Your task to perform on an android device: turn notification dots off Image 0: 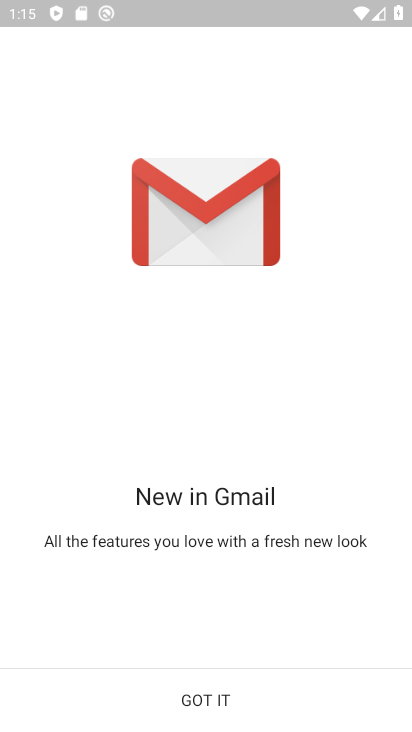
Step 0: press home button
Your task to perform on an android device: turn notification dots off Image 1: 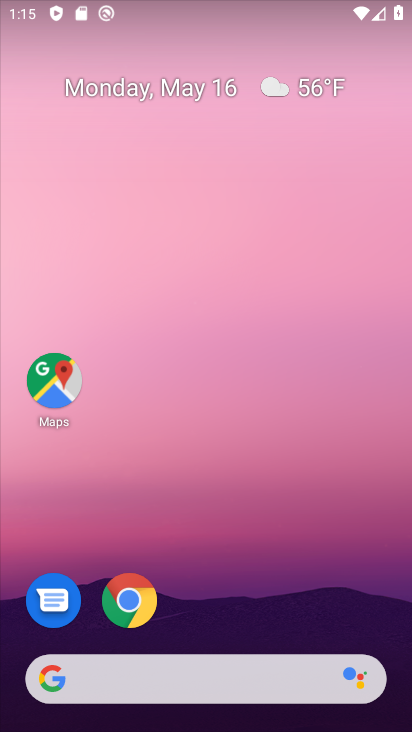
Step 1: drag from (285, 620) to (300, 119)
Your task to perform on an android device: turn notification dots off Image 2: 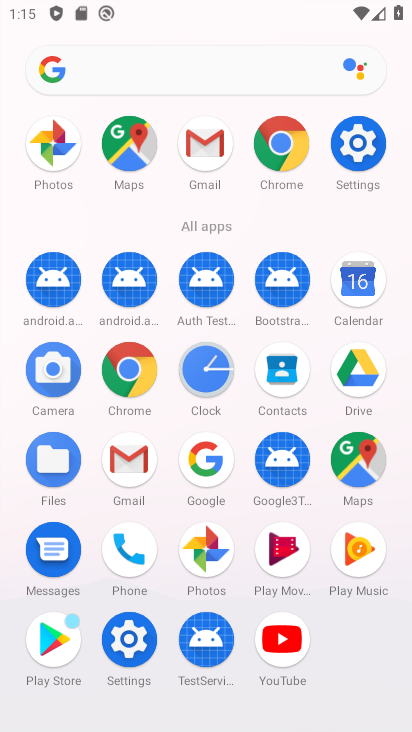
Step 2: click (349, 150)
Your task to perform on an android device: turn notification dots off Image 3: 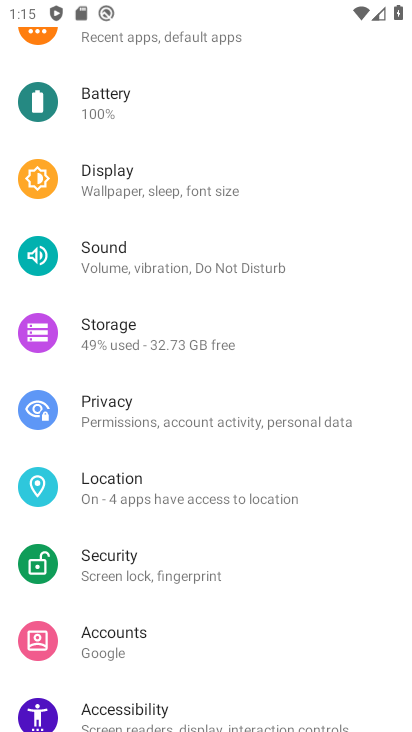
Step 3: click (144, 44)
Your task to perform on an android device: turn notification dots off Image 4: 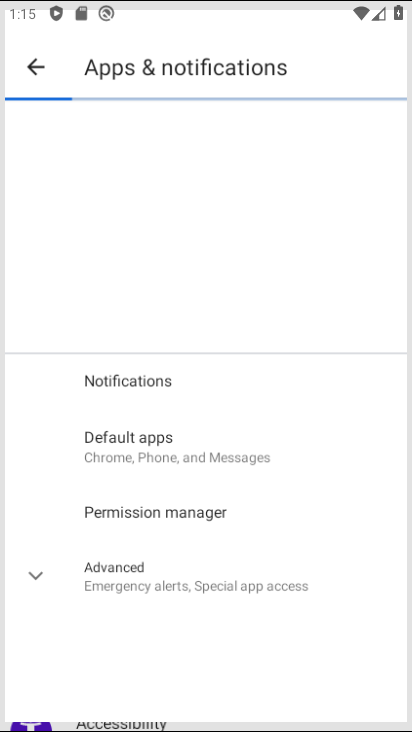
Step 4: drag from (150, 58) to (187, 421)
Your task to perform on an android device: turn notification dots off Image 5: 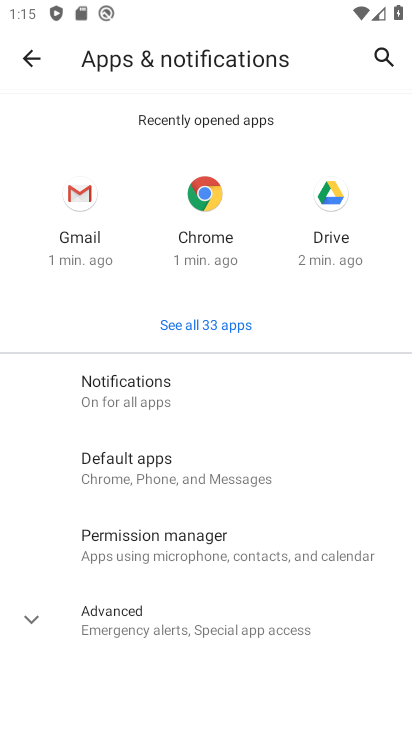
Step 5: click (165, 403)
Your task to perform on an android device: turn notification dots off Image 6: 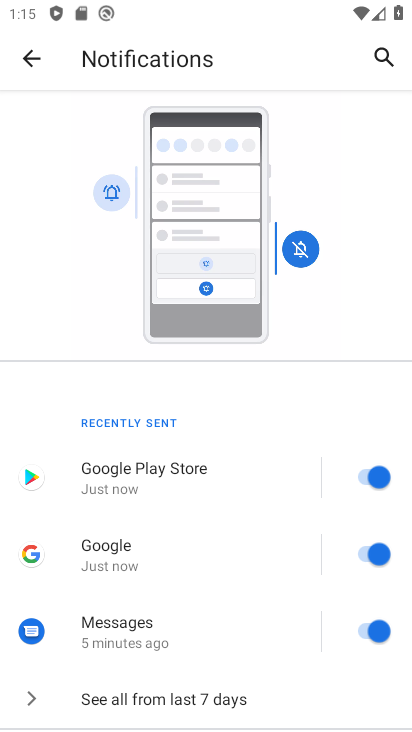
Step 6: drag from (214, 663) to (251, 166)
Your task to perform on an android device: turn notification dots off Image 7: 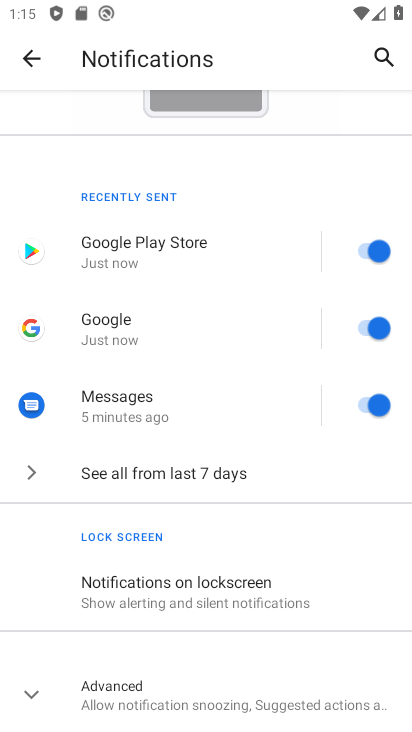
Step 7: click (183, 690)
Your task to perform on an android device: turn notification dots off Image 8: 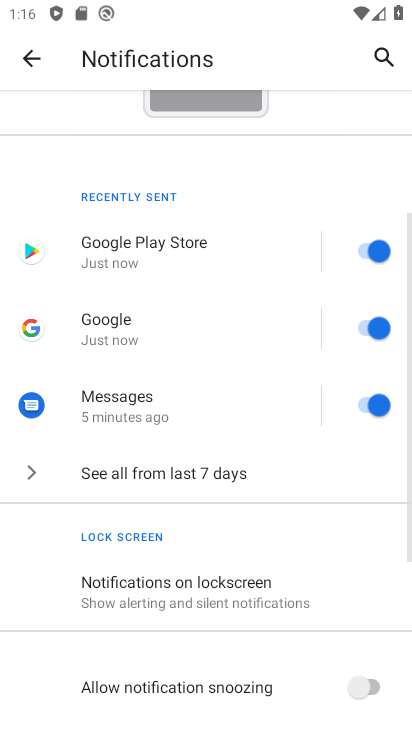
Step 8: drag from (195, 657) to (213, 161)
Your task to perform on an android device: turn notification dots off Image 9: 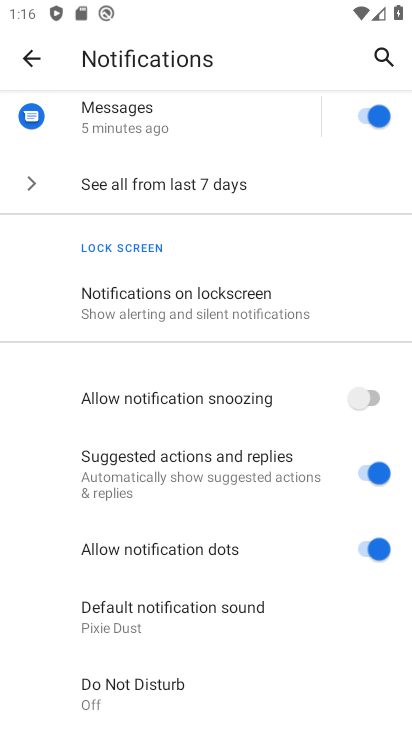
Step 9: click (382, 546)
Your task to perform on an android device: turn notification dots off Image 10: 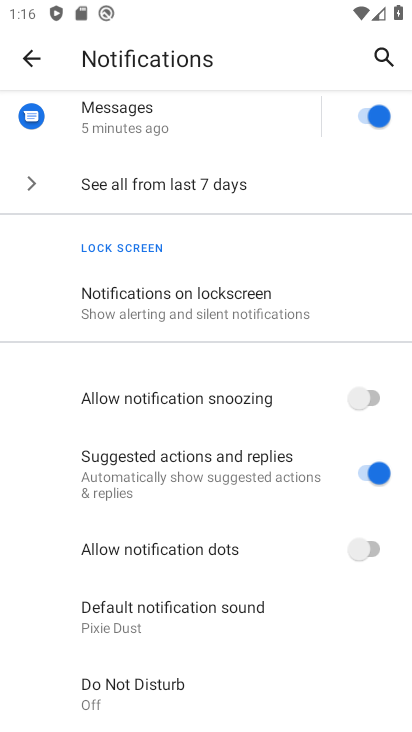
Step 10: task complete